Your task to perform on an android device: Go to internet settings Image 0: 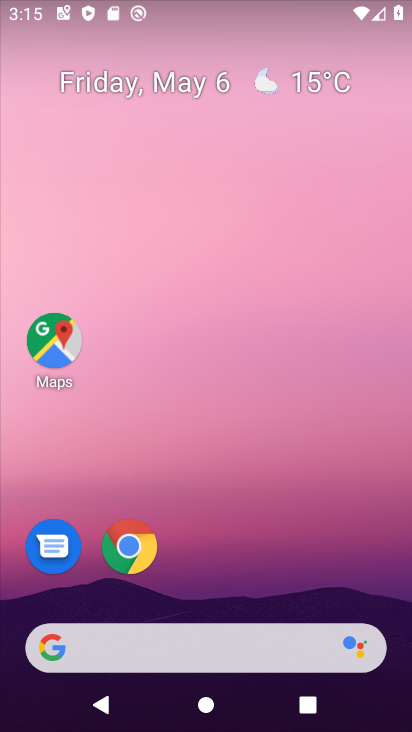
Step 0: drag from (205, 613) to (200, 266)
Your task to perform on an android device: Go to internet settings Image 1: 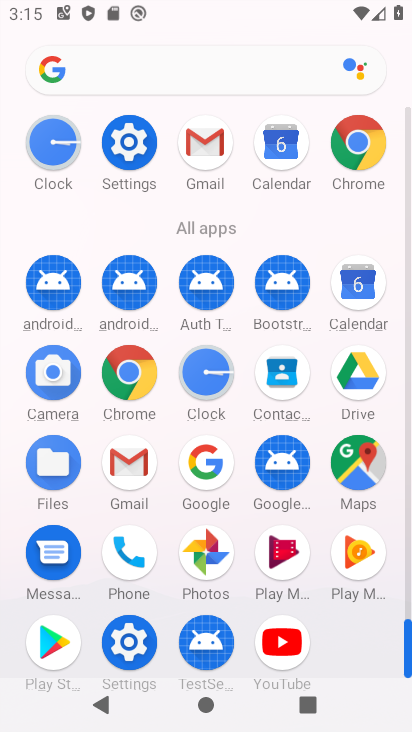
Step 1: click (134, 150)
Your task to perform on an android device: Go to internet settings Image 2: 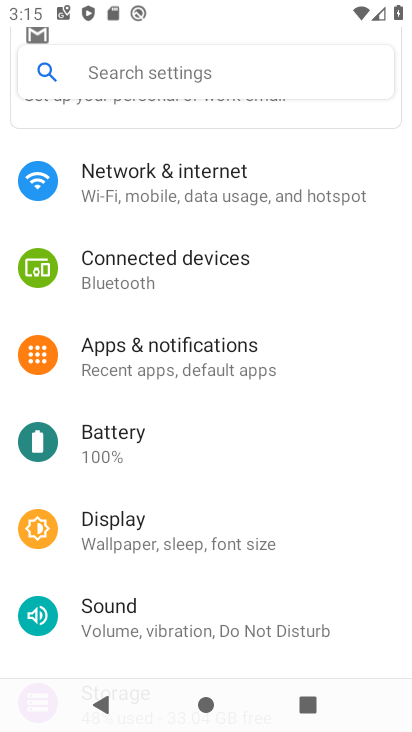
Step 2: click (124, 182)
Your task to perform on an android device: Go to internet settings Image 3: 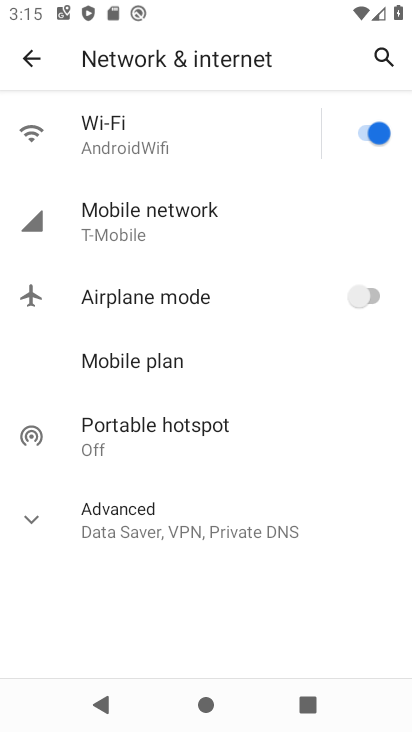
Step 3: click (161, 522)
Your task to perform on an android device: Go to internet settings Image 4: 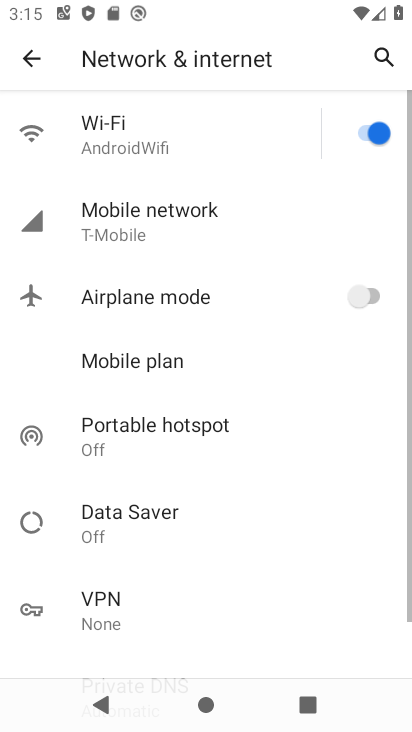
Step 4: drag from (179, 617) to (179, 362)
Your task to perform on an android device: Go to internet settings Image 5: 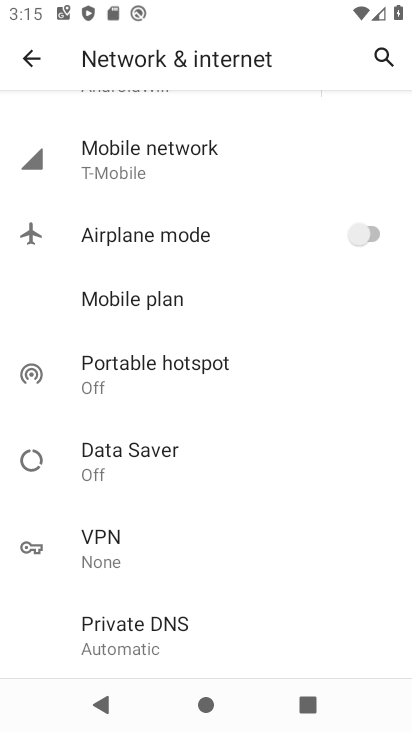
Step 5: drag from (154, 655) to (150, 486)
Your task to perform on an android device: Go to internet settings Image 6: 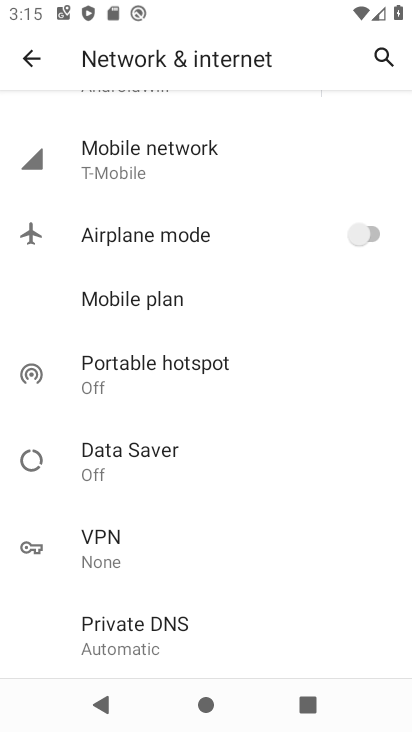
Step 6: drag from (187, 191) to (185, 524)
Your task to perform on an android device: Go to internet settings Image 7: 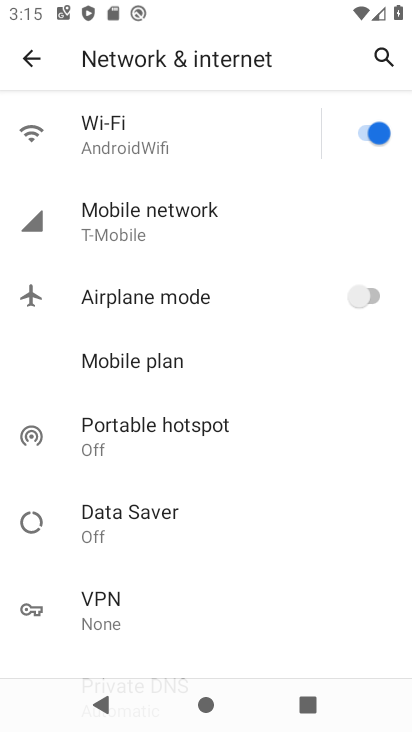
Step 7: click (139, 223)
Your task to perform on an android device: Go to internet settings Image 8: 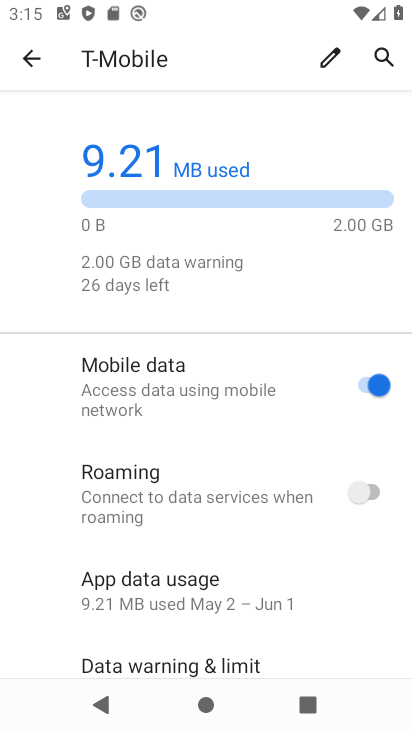
Step 8: drag from (165, 612) to (156, 344)
Your task to perform on an android device: Go to internet settings Image 9: 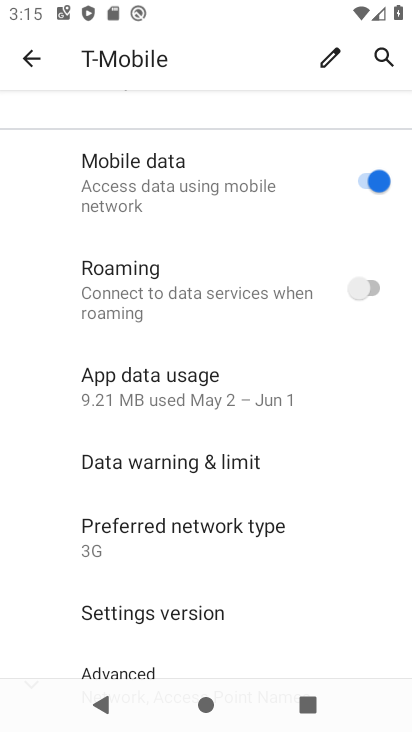
Step 9: drag from (136, 636) to (163, 372)
Your task to perform on an android device: Go to internet settings Image 10: 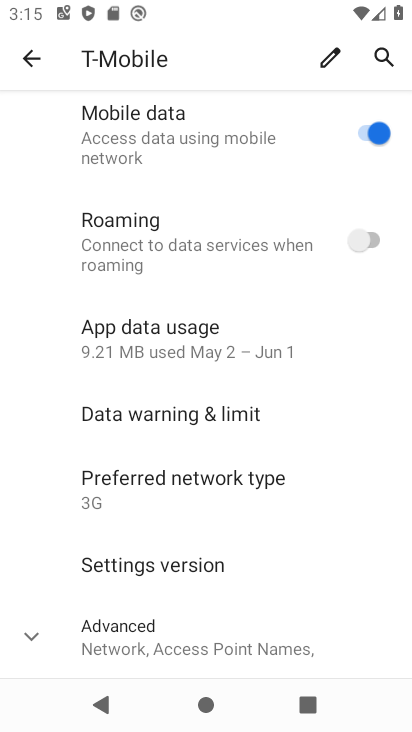
Step 10: click (162, 642)
Your task to perform on an android device: Go to internet settings Image 11: 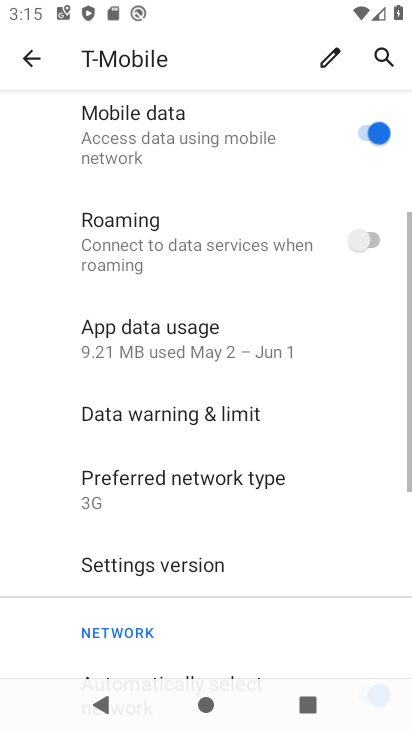
Step 11: task complete